Your task to perform on an android device: Go to Reddit.com Image 0: 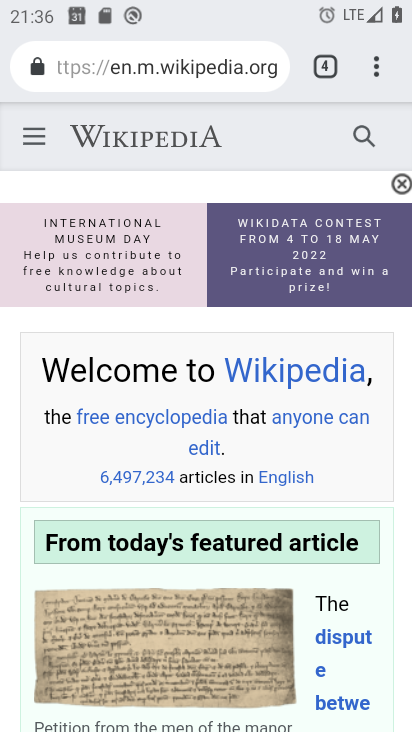
Step 0: press home button
Your task to perform on an android device: Go to Reddit.com Image 1: 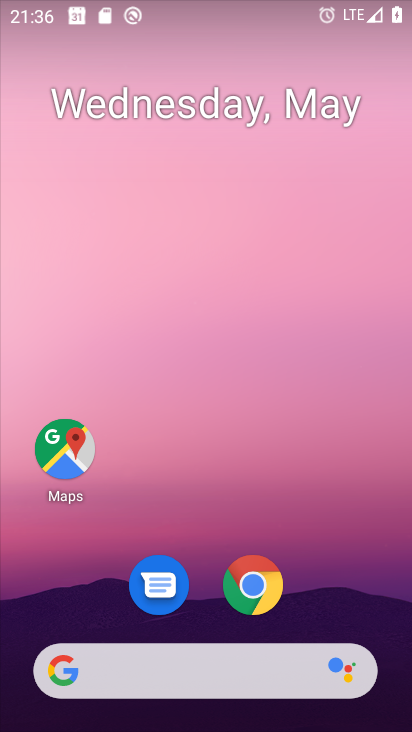
Step 1: click (250, 665)
Your task to perform on an android device: Go to Reddit.com Image 2: 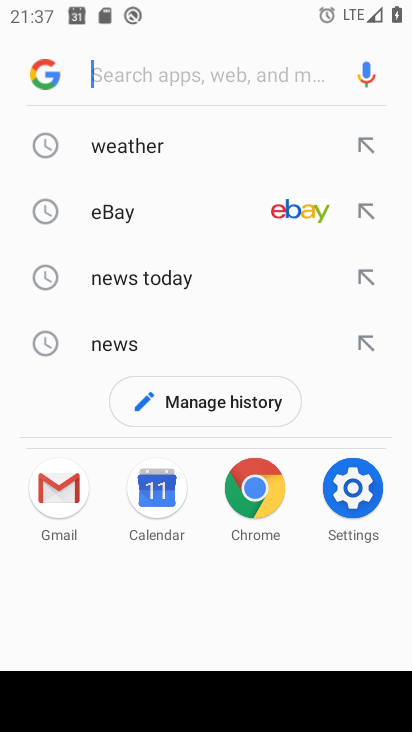
Step 2: type "reddit.com"
Your task to perform on an android device: Go to Reddit.com Image 3: 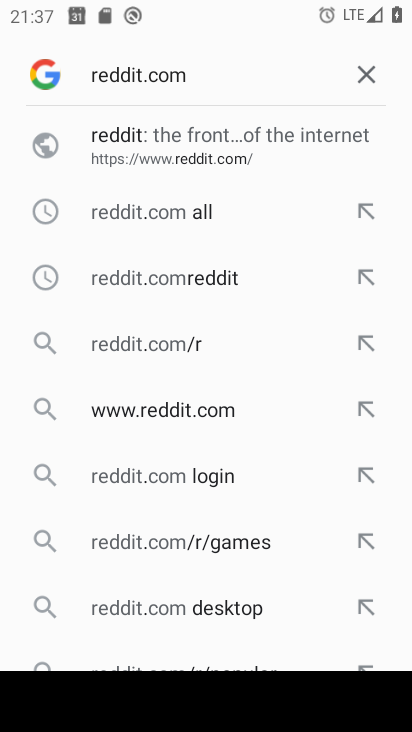
Step 3: click (120, 144)
Your task to perform on an android device: Go to Reddit.com Image 4: 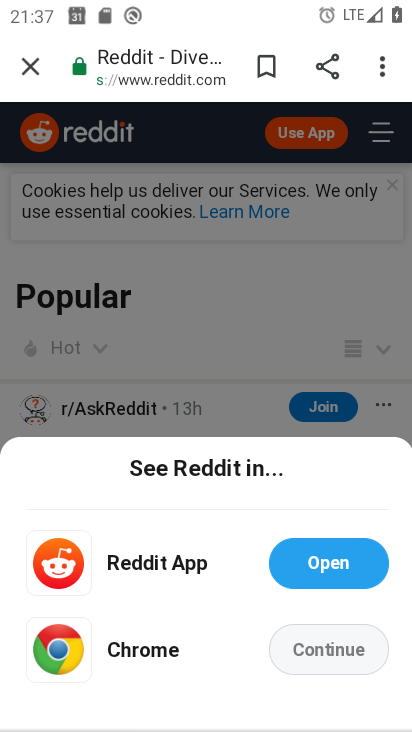
Step 4: task complete